Your task to perform on an android device: Open calendar and show me the fourth week of next month Image 0: 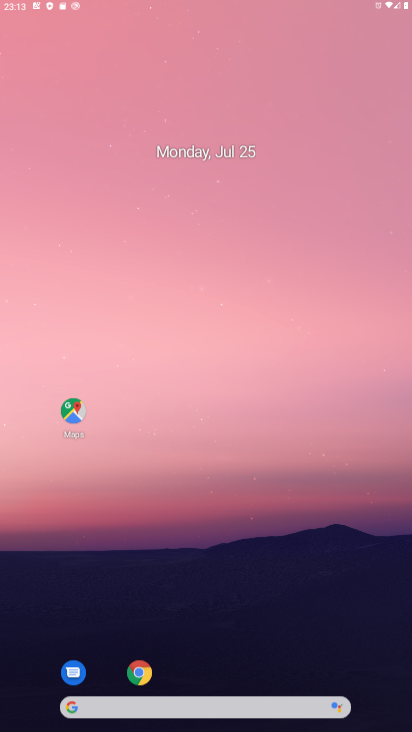
Step 0: press home button
Your task to perform on an android device: Open calendar and show me the fourth week of next month Image 1: 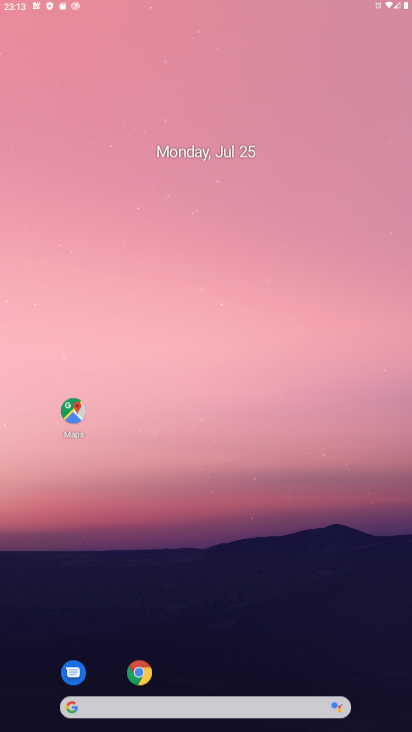
Step 1: click (206, 131)
Your task to perform on an android device: Open calendar and show me the fourth week of next month Image 2: 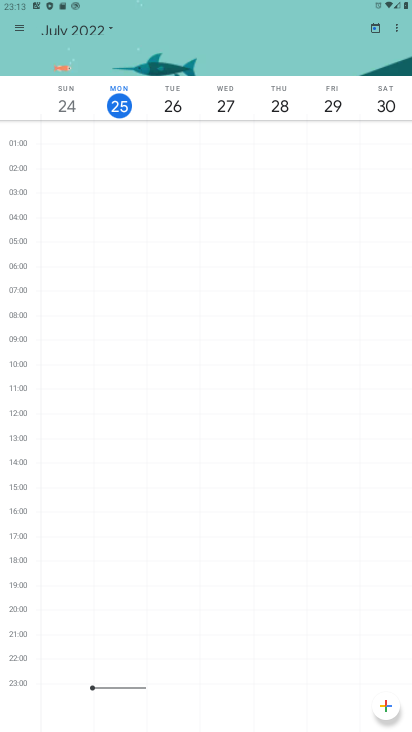
Step 2: click (103, 25)
Your task to perform on an android device: Open calendar and show me the fourth week of next month Image 3: 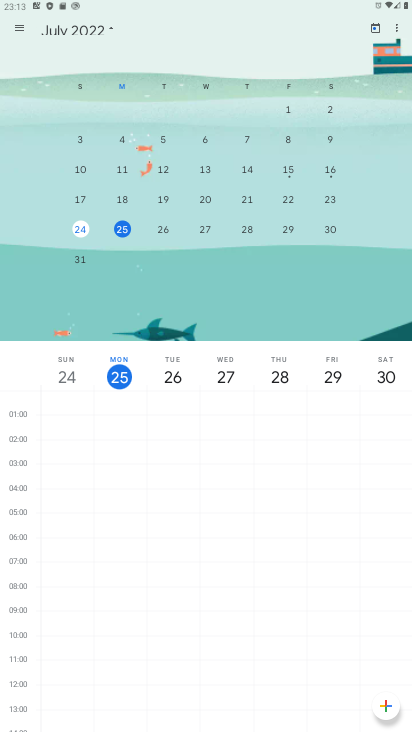
Step 3: drag from (338, 198) to (0, 217)
Your task to perform on an android device: Open calendar and show me the fourth week of next month Image 4: 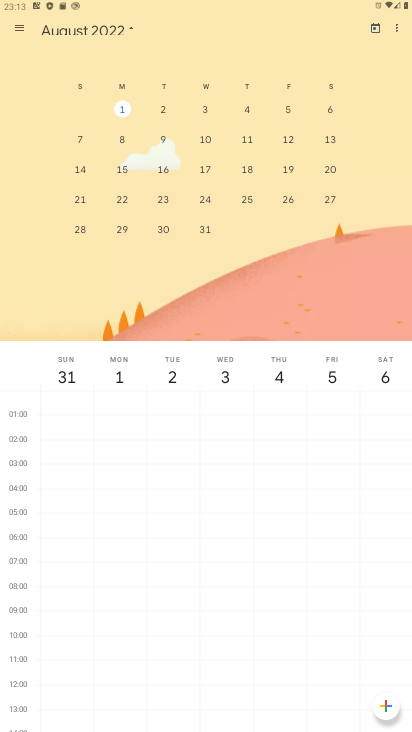
Step 4: click (73, 198)
Your task to perform on an android device: Open calendar and show me the fourth week of next month Image 5: 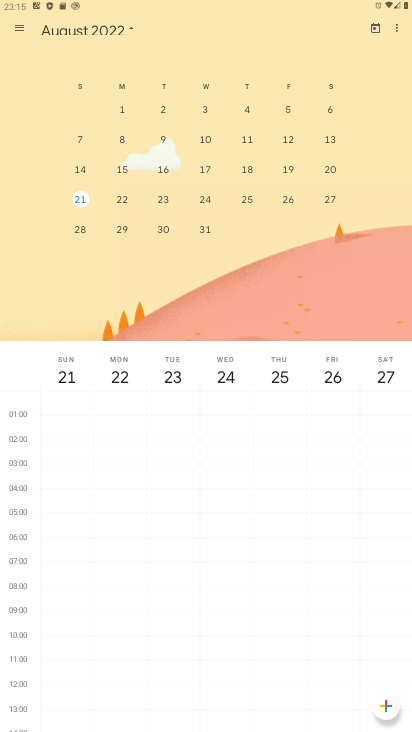
Step 5: click (118, 28)
Your task to perform on an android device: Open calendar and show me the fourth week of next month Image 6: 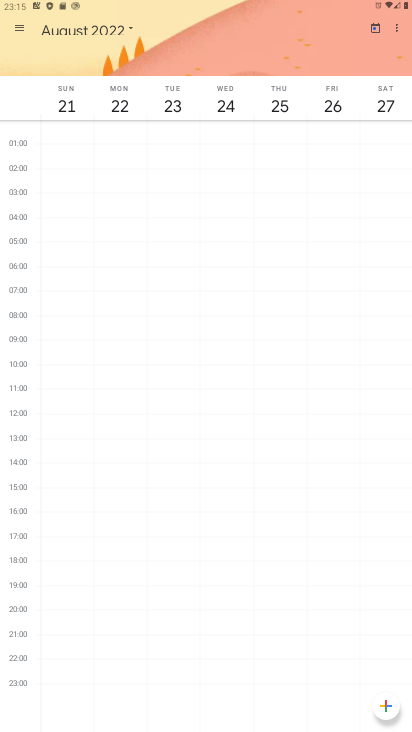
Step 6: task complete